Your task to perform on an android device: Open internet settings Image 0: 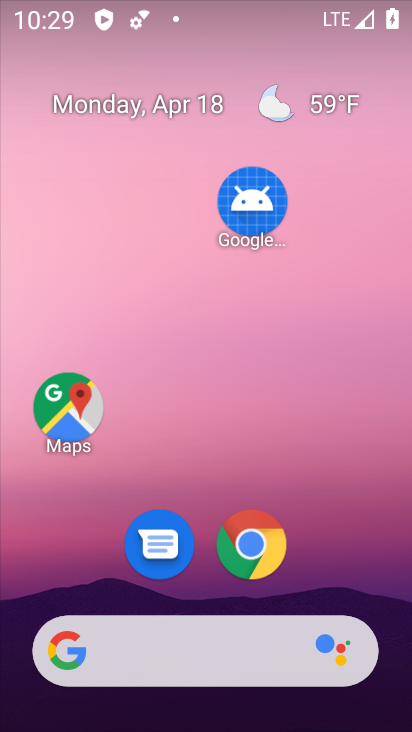
Step 0: drag from (326, 470) to (329, 214)
Your task to perform on an android device: Open internet settings Image 1: 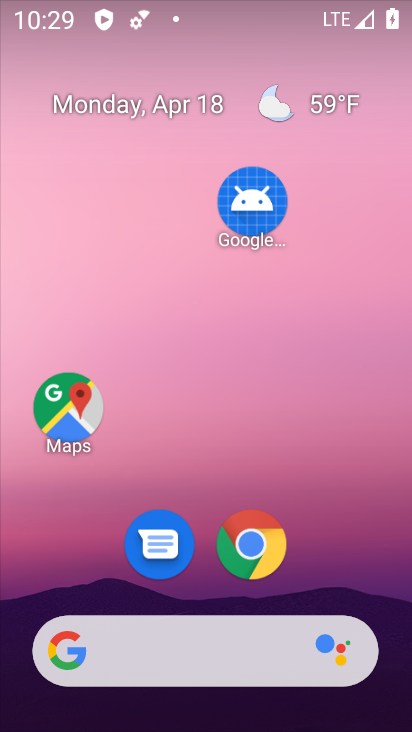
Step 1: drag from (310, 498) to (319, 116)
Your task to perform on an android device: Open internet settings Image 2: 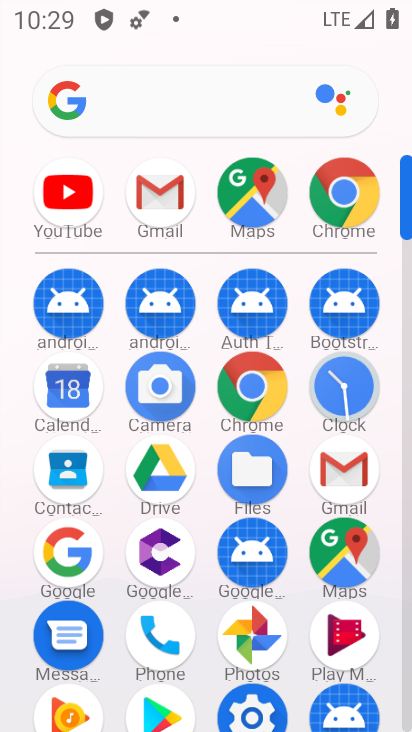
Step 2: click (242, 693)
Your task to perform on an android device: Open internet settings Image 3: 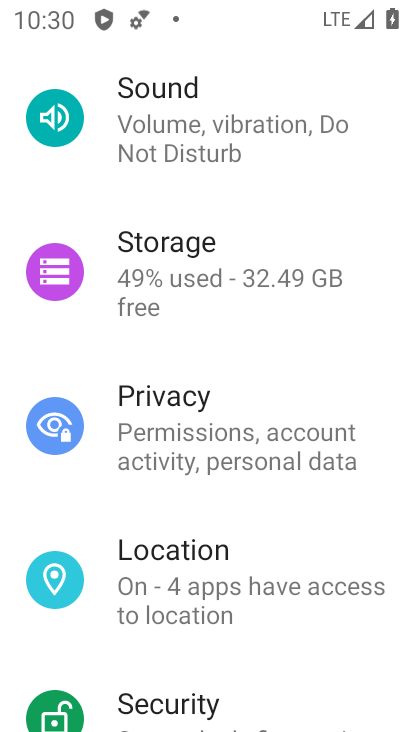
Step 3: drag from (204, 149) to (162, 662)
Your task to perform on an android device: Open internet settings Image 4: 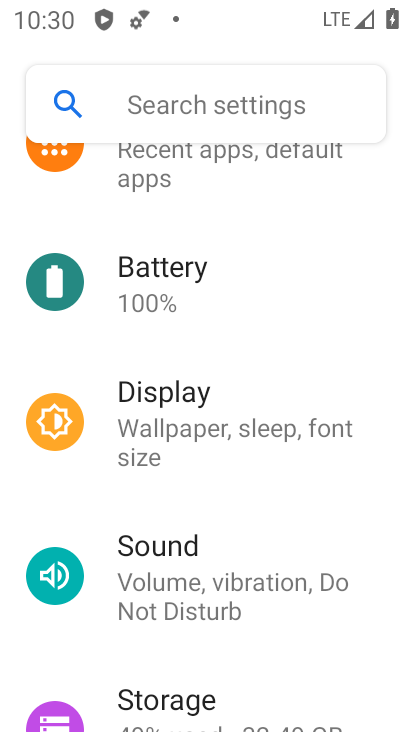
Step 4: drag from (165, 278) to (143, 664)
Your task to perform on an android device: Open internet settings Image 5: 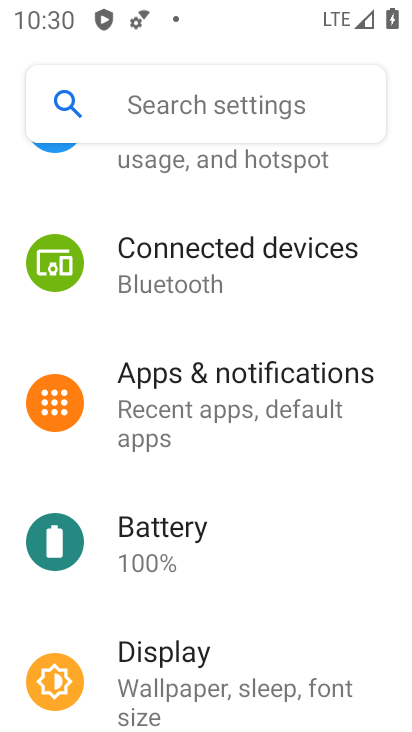
Step 5: drag from (169, 219) to (188, 651)
Your task to perform on an android device: Open internet settings Image 6: 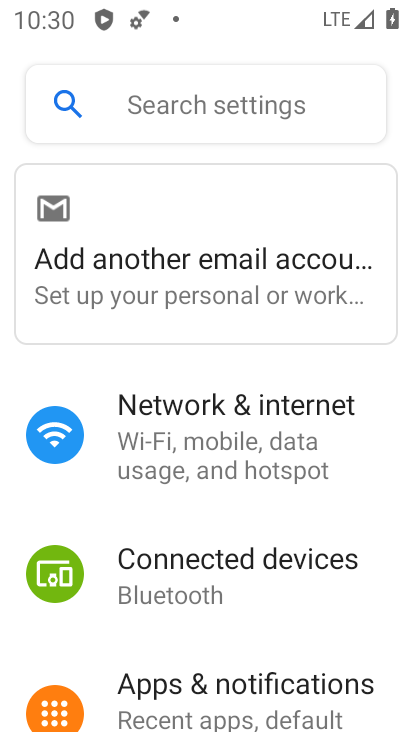
Step 6: click (190, 412)
Your task to perform on an android device: Open internet settings Image 7: 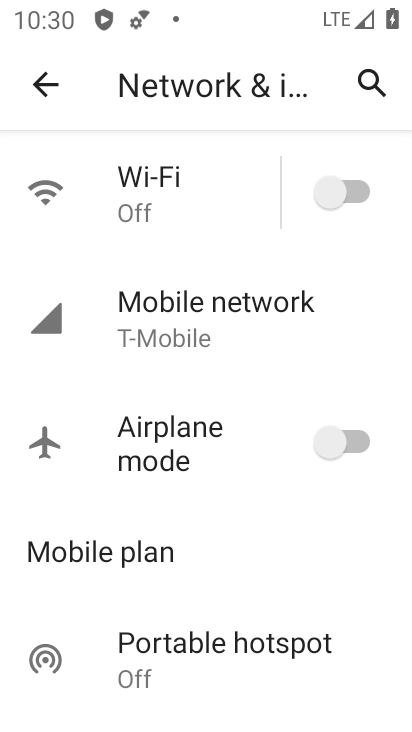
Step 7: click (194, 305)
Your task to perform on an android device: Open internet settings Image 8: 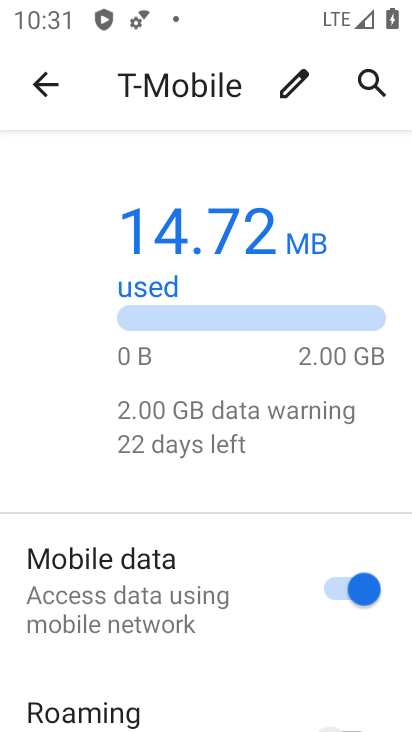
Step 8: drag from (220, 597) to (248, 98)
Your task to perform on an android device: Open internet settings Image 9: 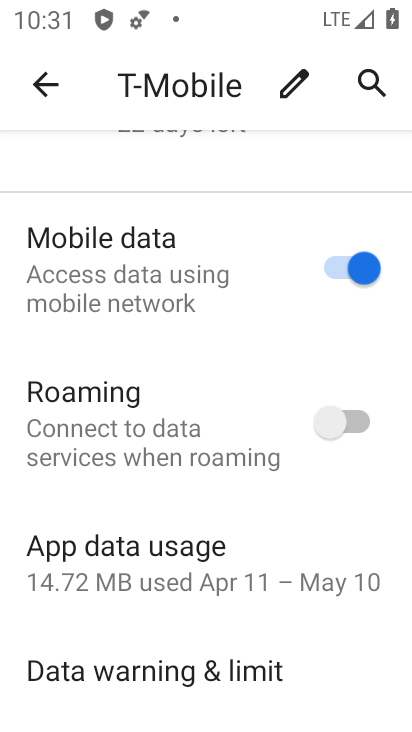
Step 9: click (66, 78)
Your task to perform on an android device: Open internet settings Image 10: 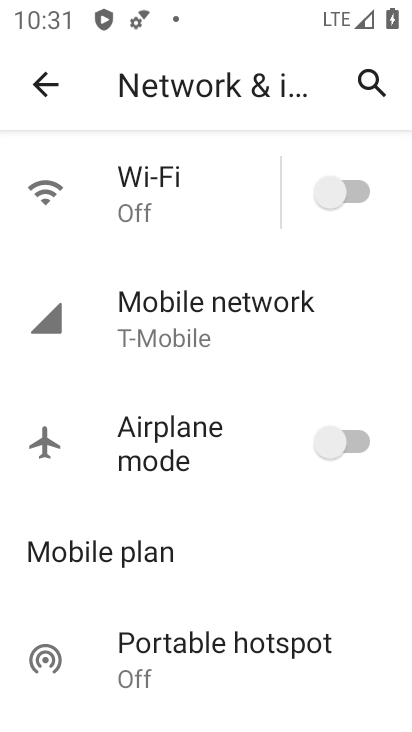
Step 10: task complete